Your task to perform on an android device: Go to CNN.com Image 0: 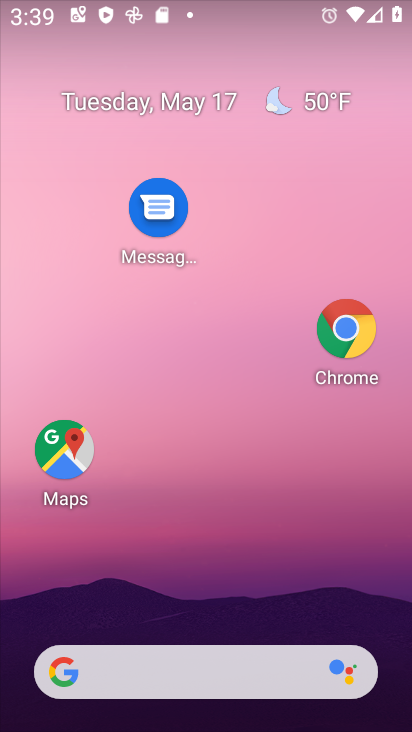
Step 0: click (353, 311)
Your task to perform on an android device: Go to CNN.com Image 1: 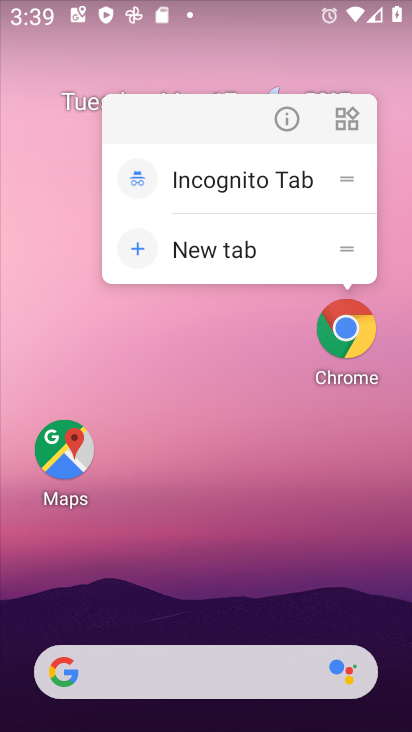
Step 1: click (325, 336)
Your task to perform on an android device: Go to CNN.com Image 2: 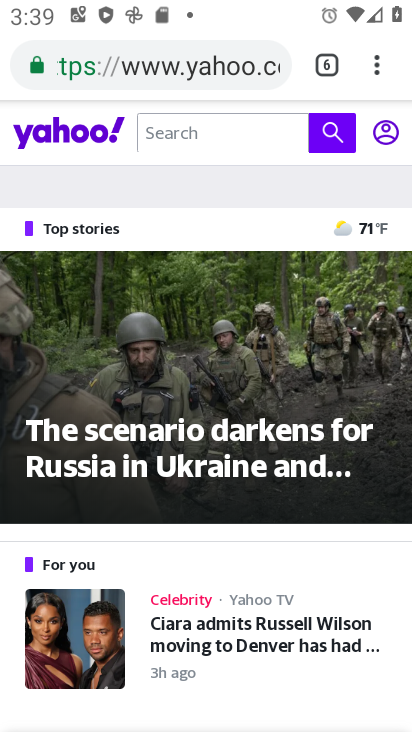
Step 2: click (136, 68)
Your task to perform on an android device: Go to CNN.com Image 3: 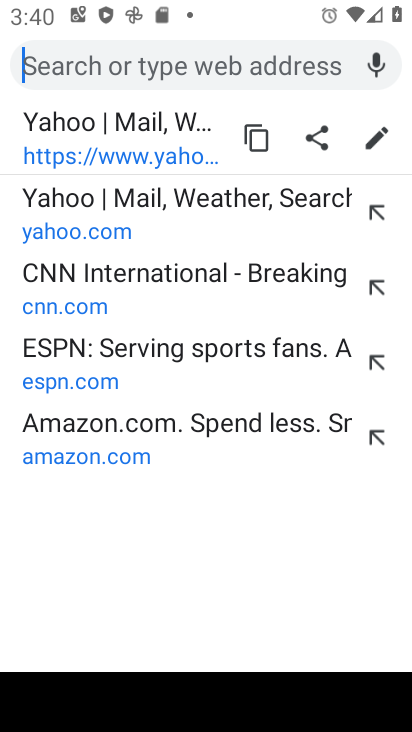
Step 3: type "cnn.com"
Your task to perform on an android device: Go to CNN.com Image 4: 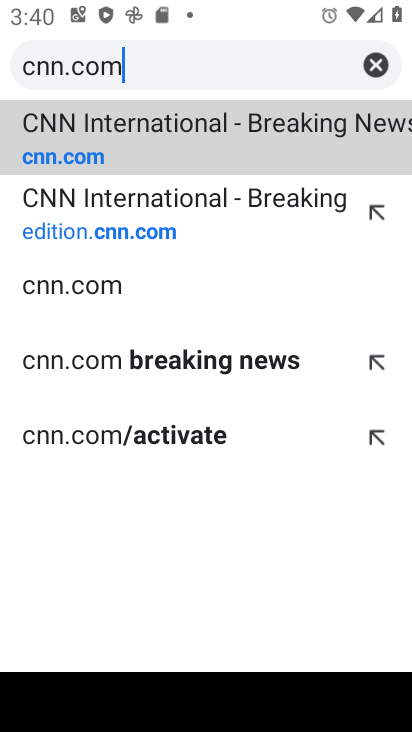
Step 4: click (172, 146)
Your task to perform on an android device: Go to CNN.com Image 5: 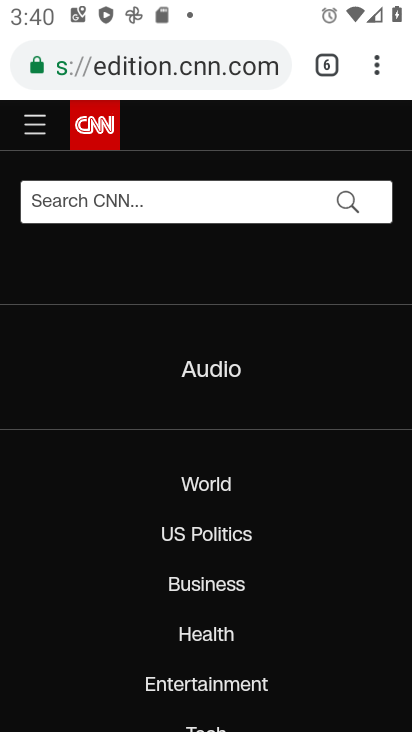
Step 5: task complete